Your task to perform on an android device: Go to Google maps Image 0: 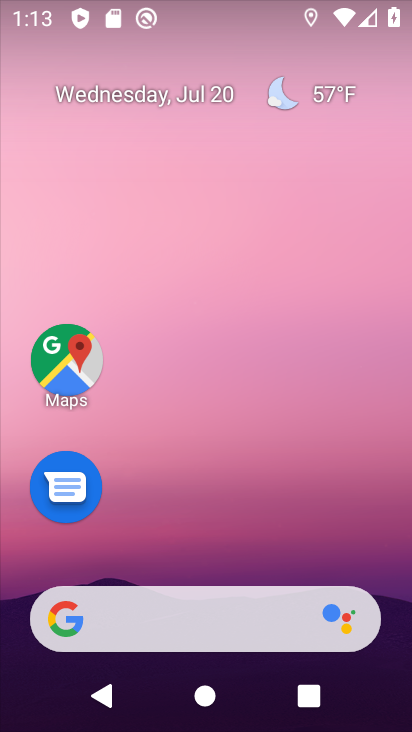
Step 0: drag from (235, 565) to (290, 39)
Your task to perform on an android device: Go to Google maps Image 1: 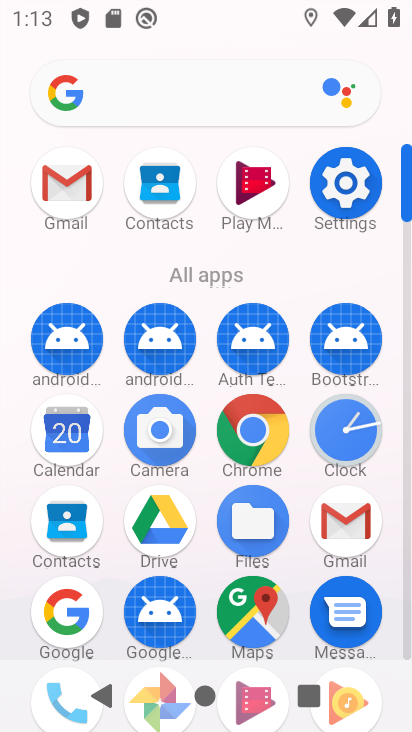
Step 1: click (257, 615)
Your task to perform on an android device: Go to Google maps Image 2: 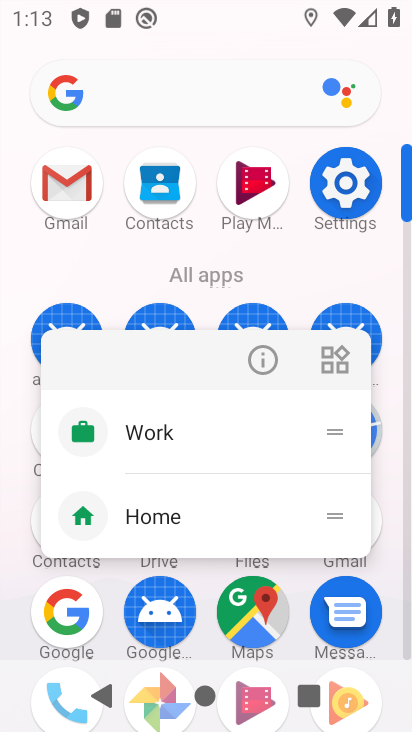
Step 2: click (249, 606)
Your task to perform on an android device: Go to Google maps Image 3: 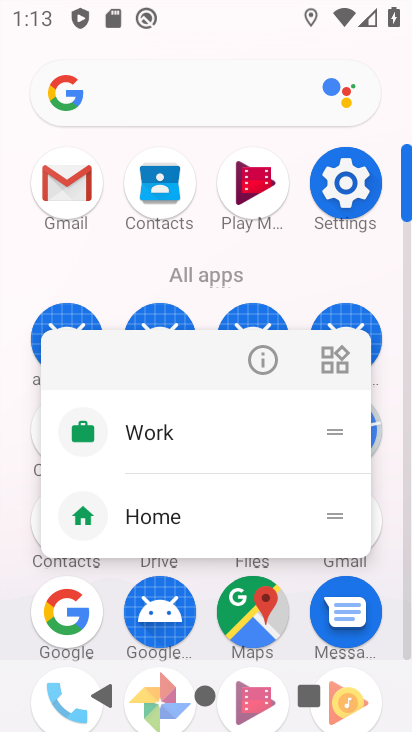
Step 3: click (240, 608)
Your task to perform on an android device: Go to Google maps Image 4: 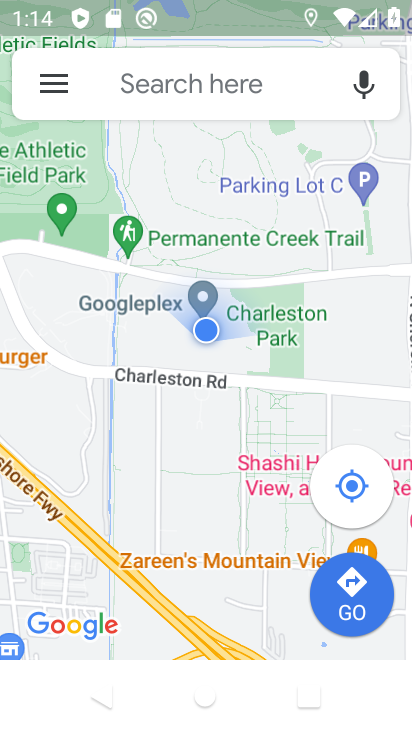
Step 4: task complete